Your task to perform on an android device: turn on data saver in the chrome app Image 0: 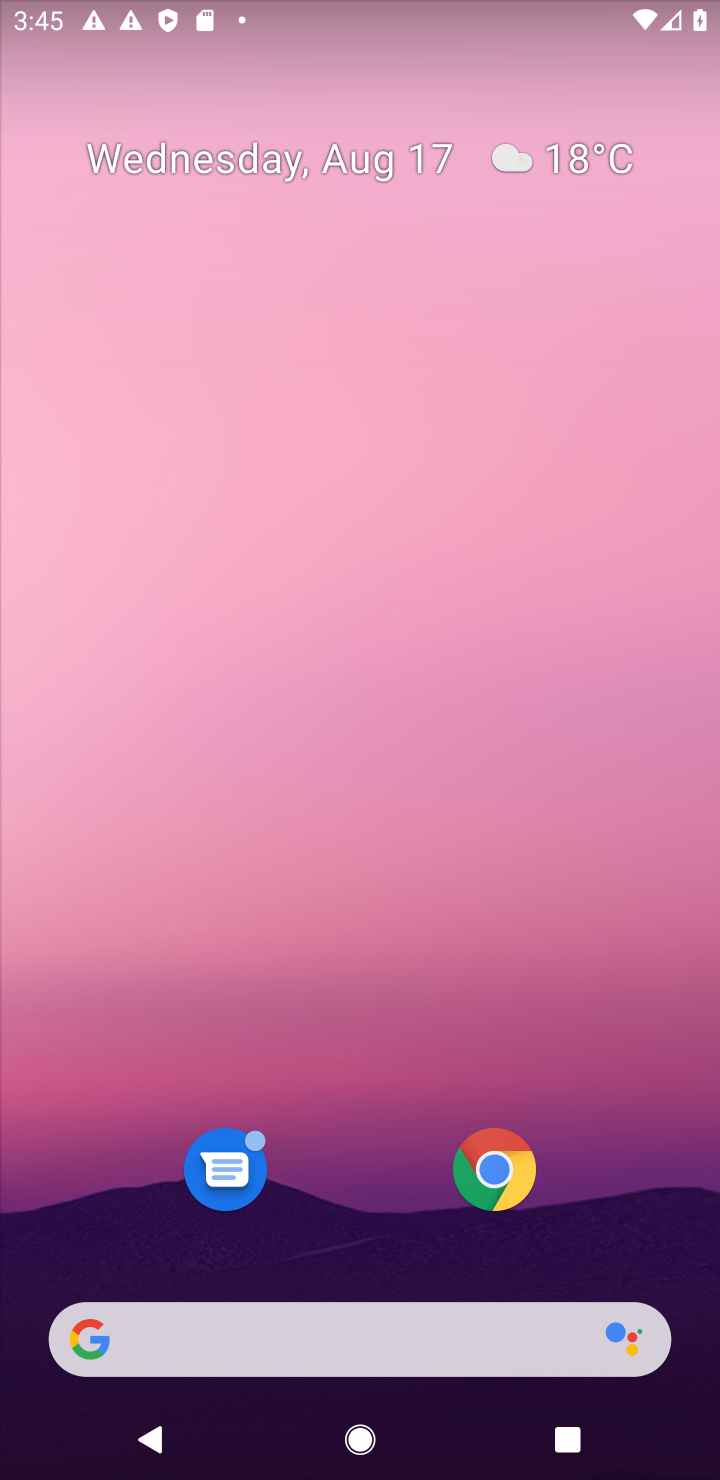
Step 0: press home button
Your task to perform on an android device: turn on data saver in the chrome app Image 1: 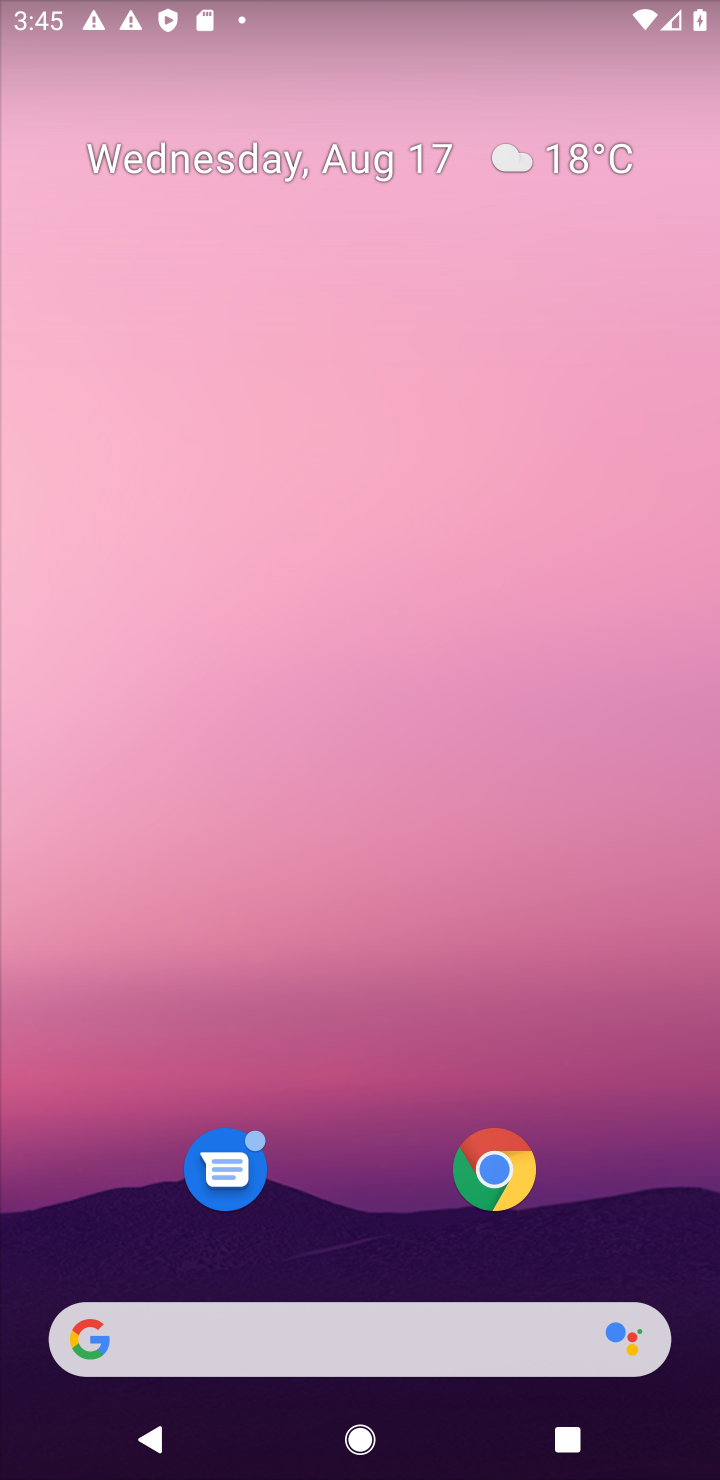
Step 1: drag from (434, 743) to (408, 200)
Your task to perform on an android device: turn on data saver in the chrome app Image 2: 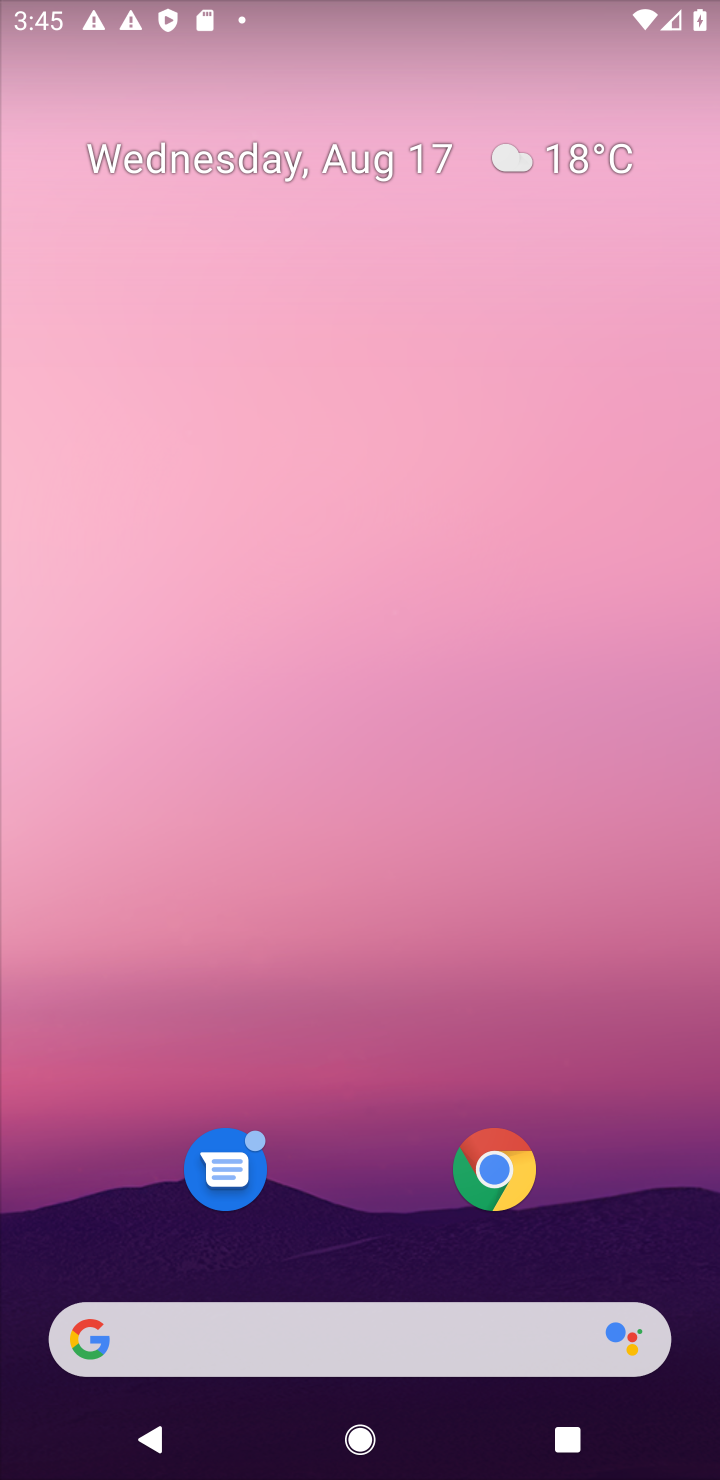
Step 2: drag from (406, 809) to (496, 118)
Your task to perform on an android device: turn on data saver in the chrome app Image 3: 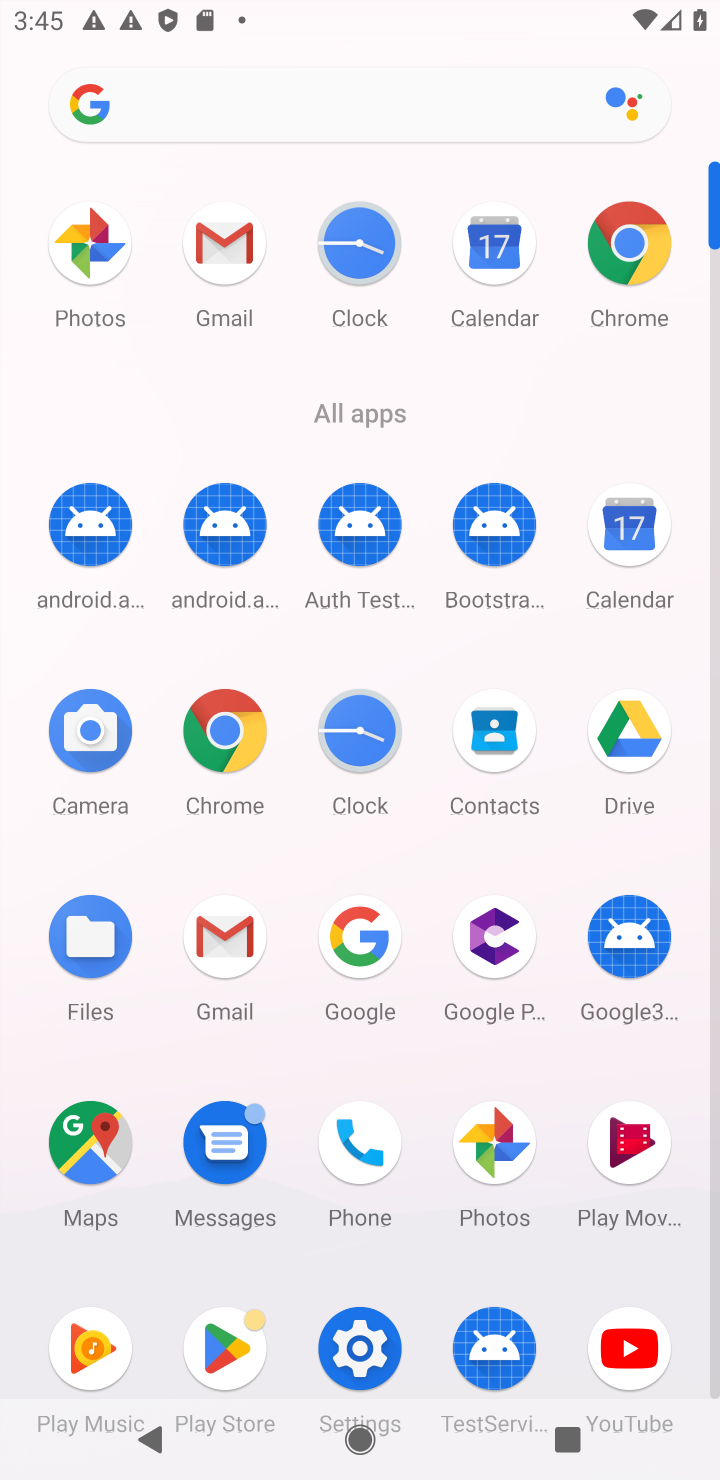
Step 3: click (225, 735)
Your task to perform on an android device: turn on data saver in the chrome app Image 4: 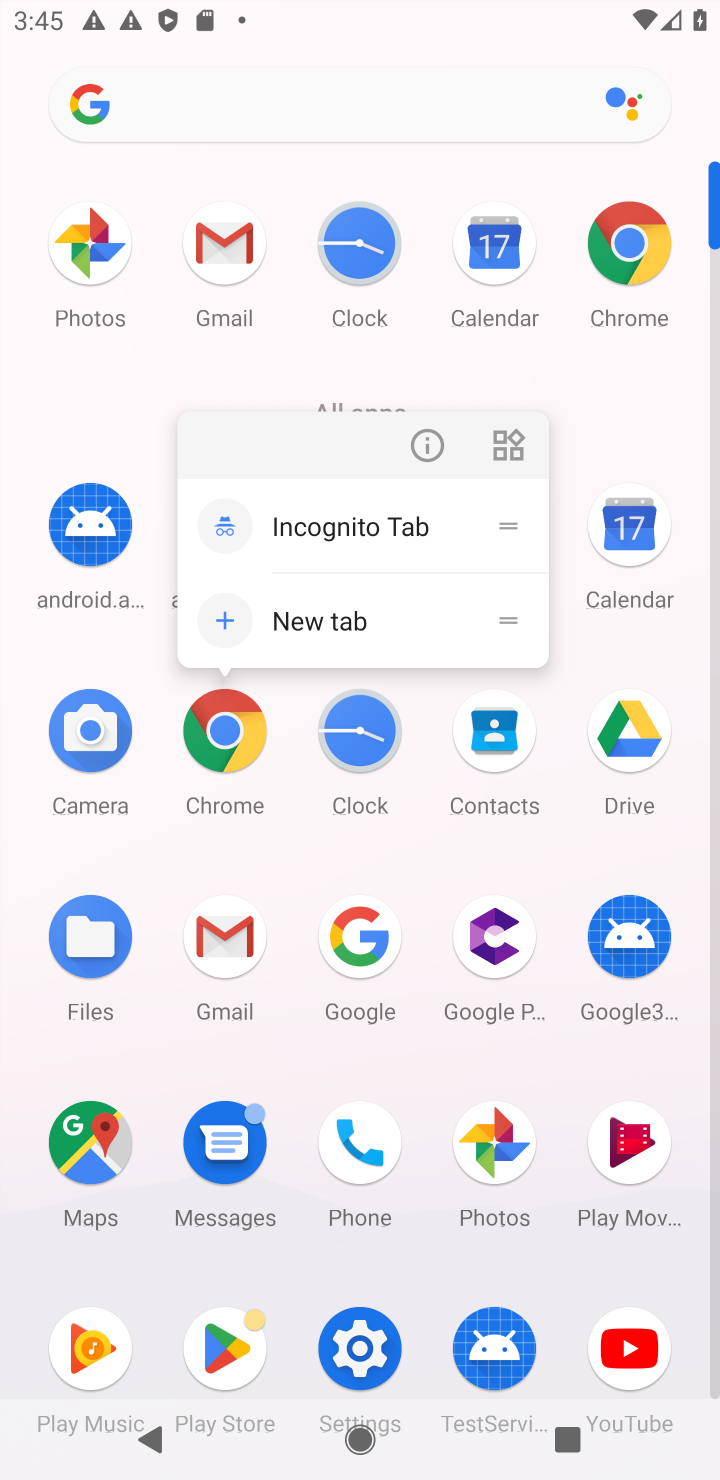
Step 4: click (246, 725)
Your task to perform on an android device: turn on data saver in the chrome app Image 5: 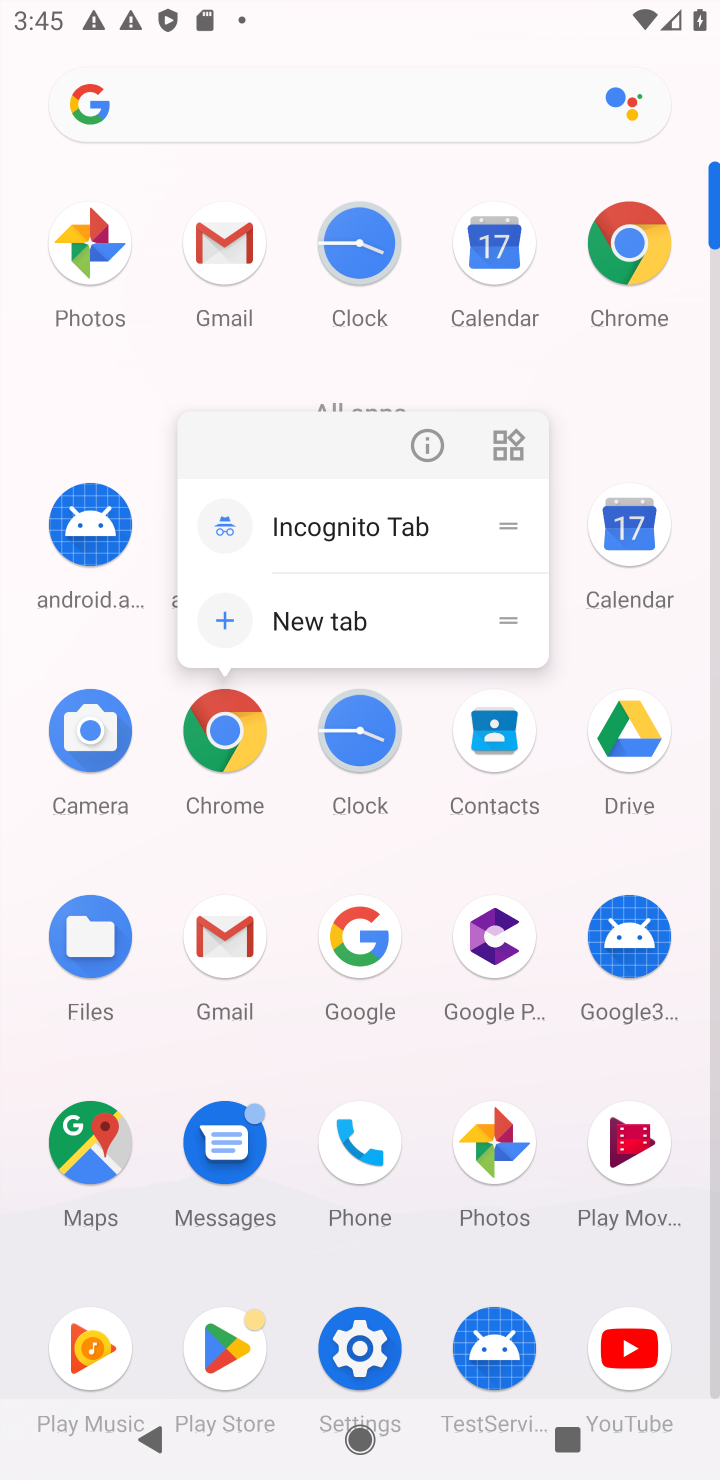
Step 5: click (223, 732)
Your task to perform on an android device: turn on data saver in the chrome app Image 6: 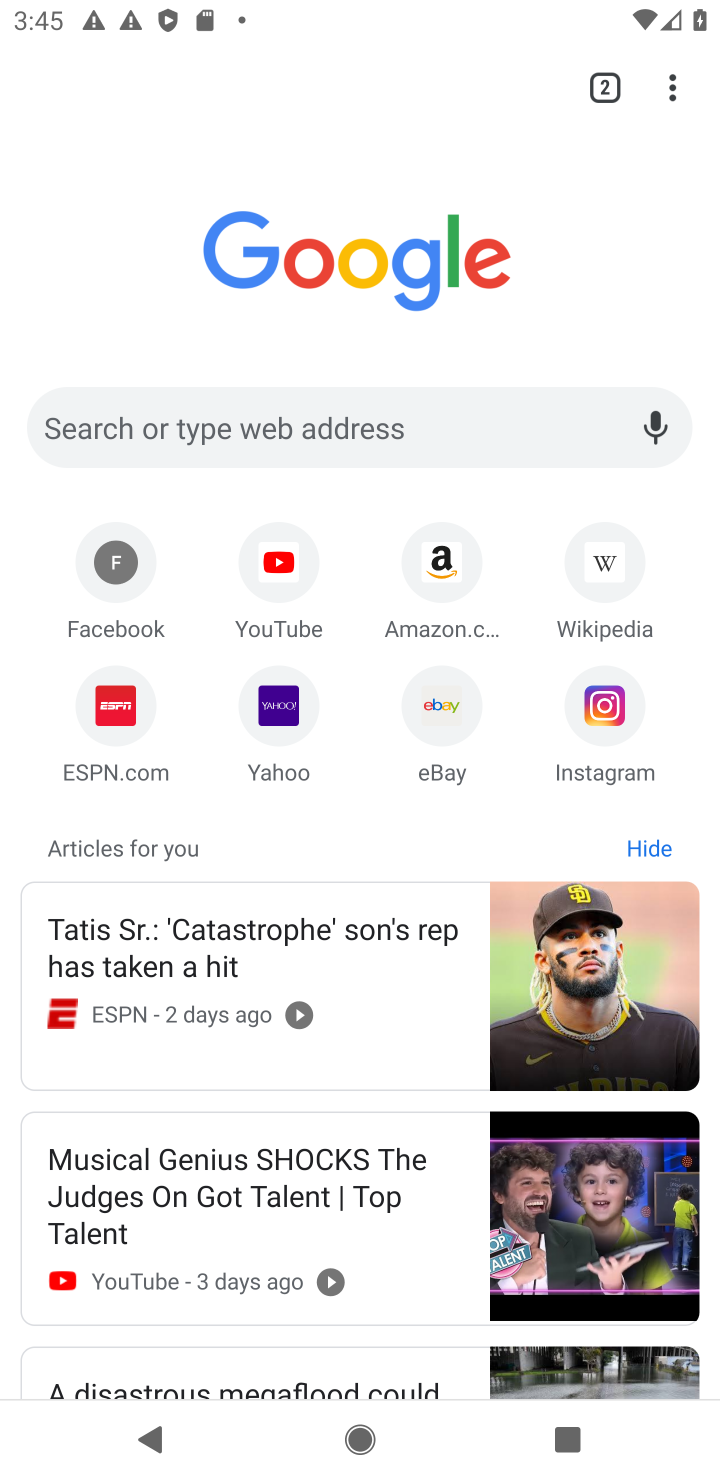
Step 6: drag from (679, 86) to (395, 823)
Your task to perform on an android device: turn on data saver in the chrome app Image 7: 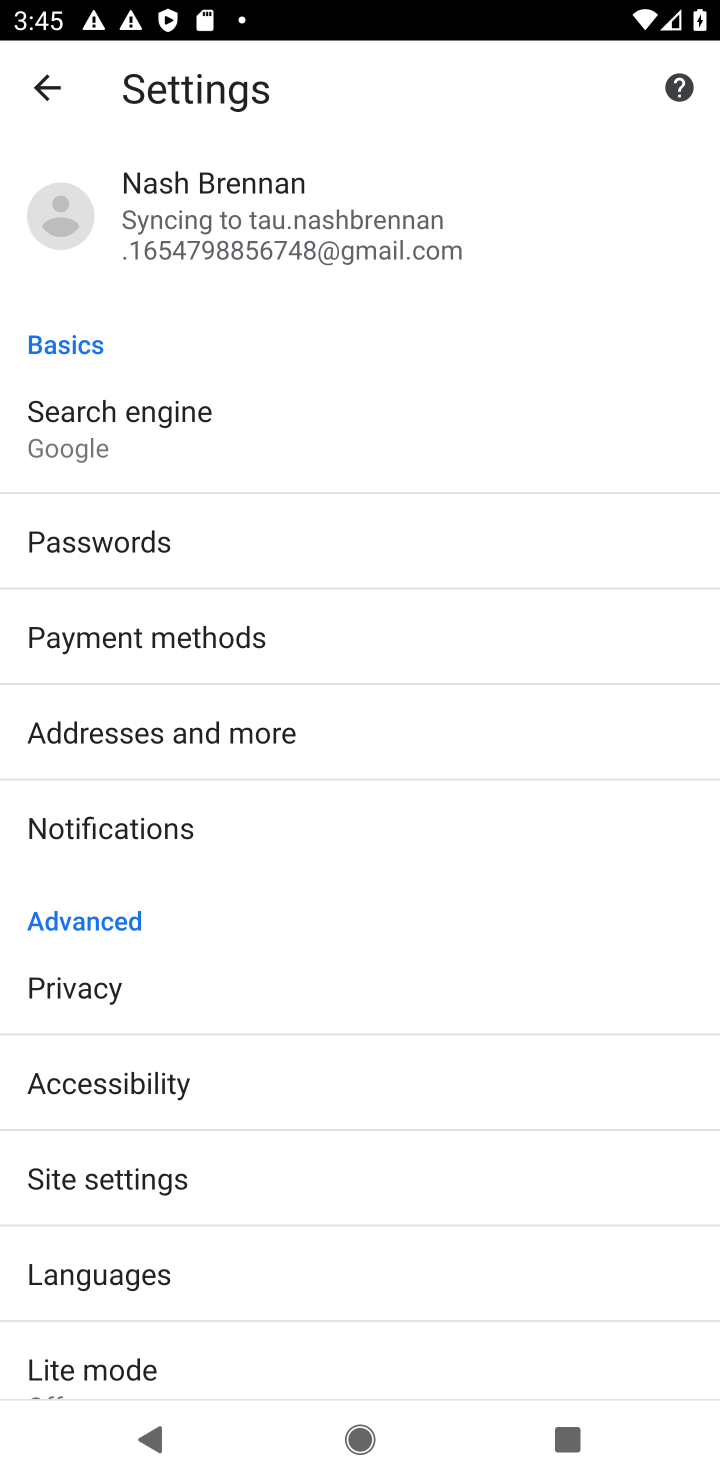
Step 7: drag from (257, 1232) to (342, 624)
Your task to perform on an android device: turn on data saver in the chrome app Image 8: 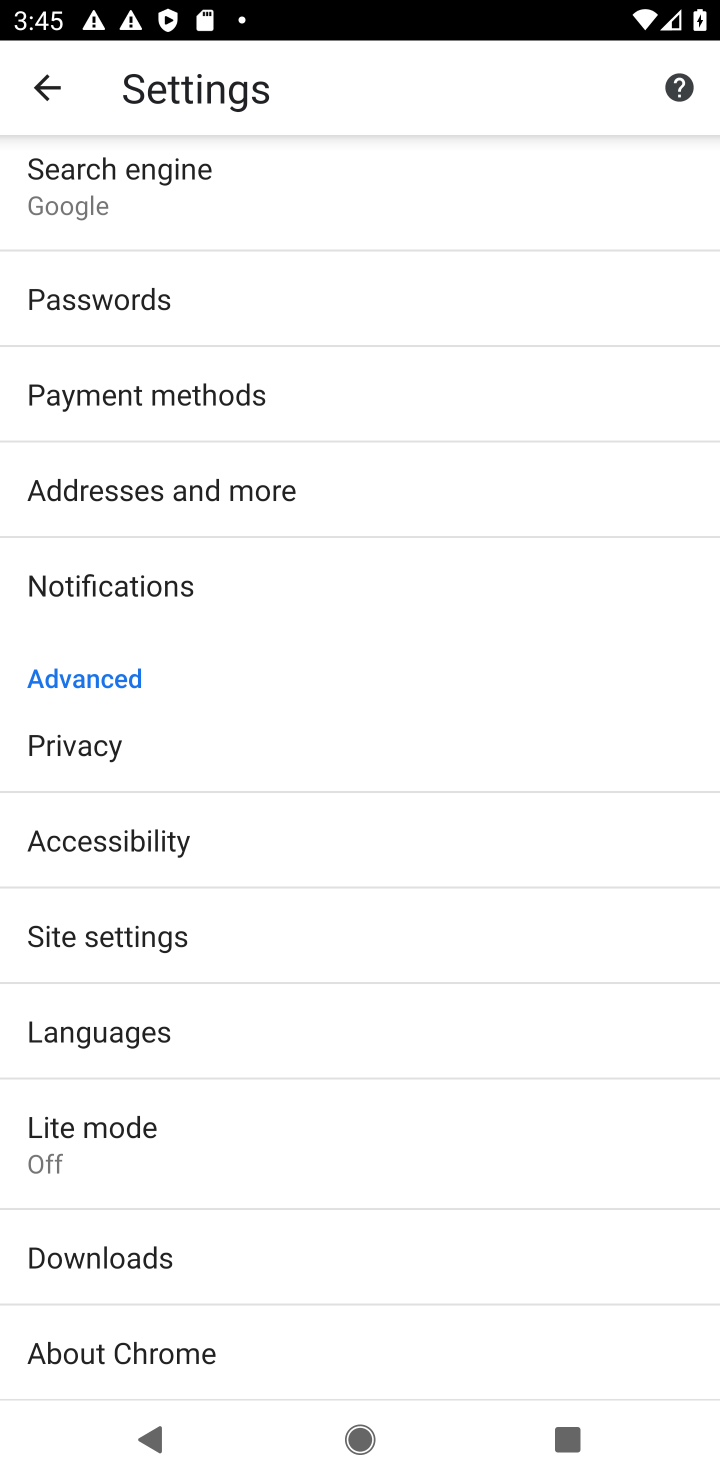
Step 8: click (128, 1137)
Your task to perform on an android device: turn on data saver in the chrome app Image 9: 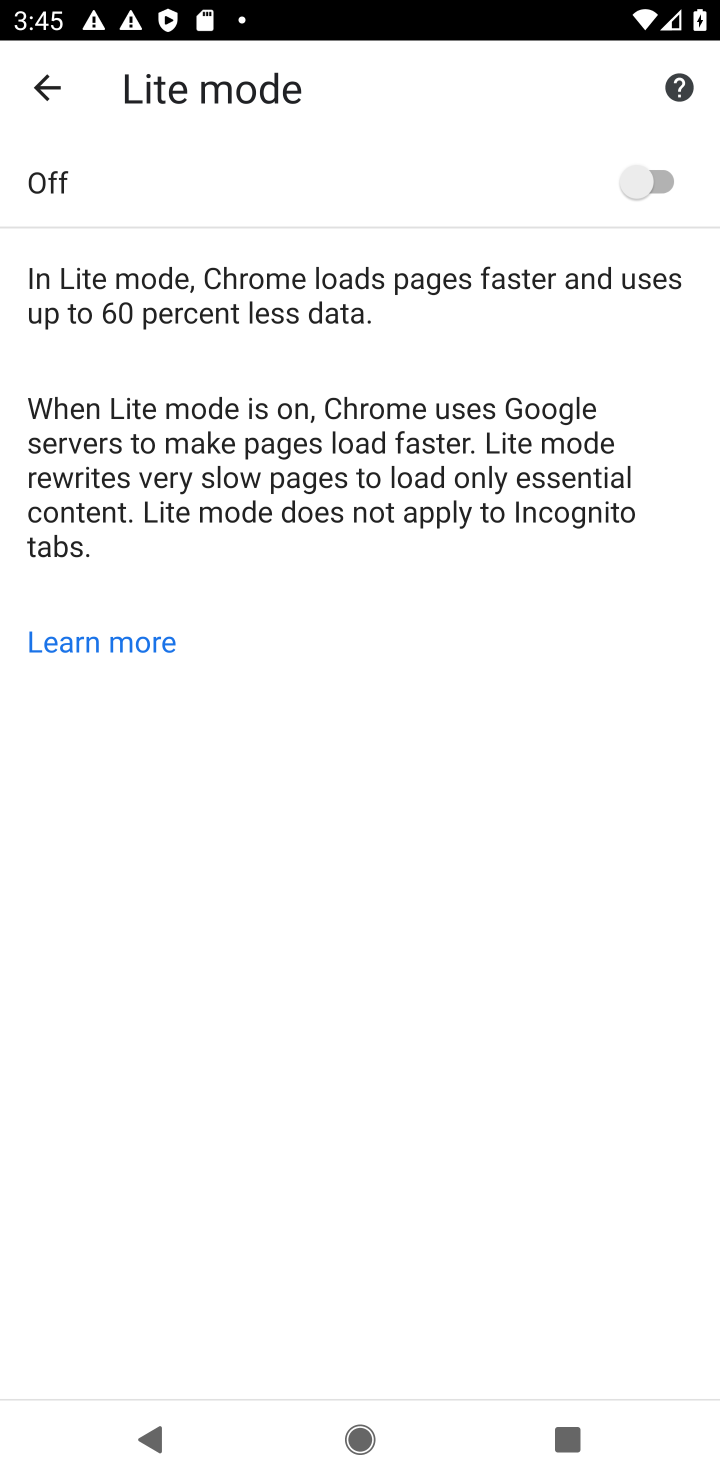
Step 9: click (489, 173)
Your task to perform on an android device: turn on data saver in the chrome app Image 10: 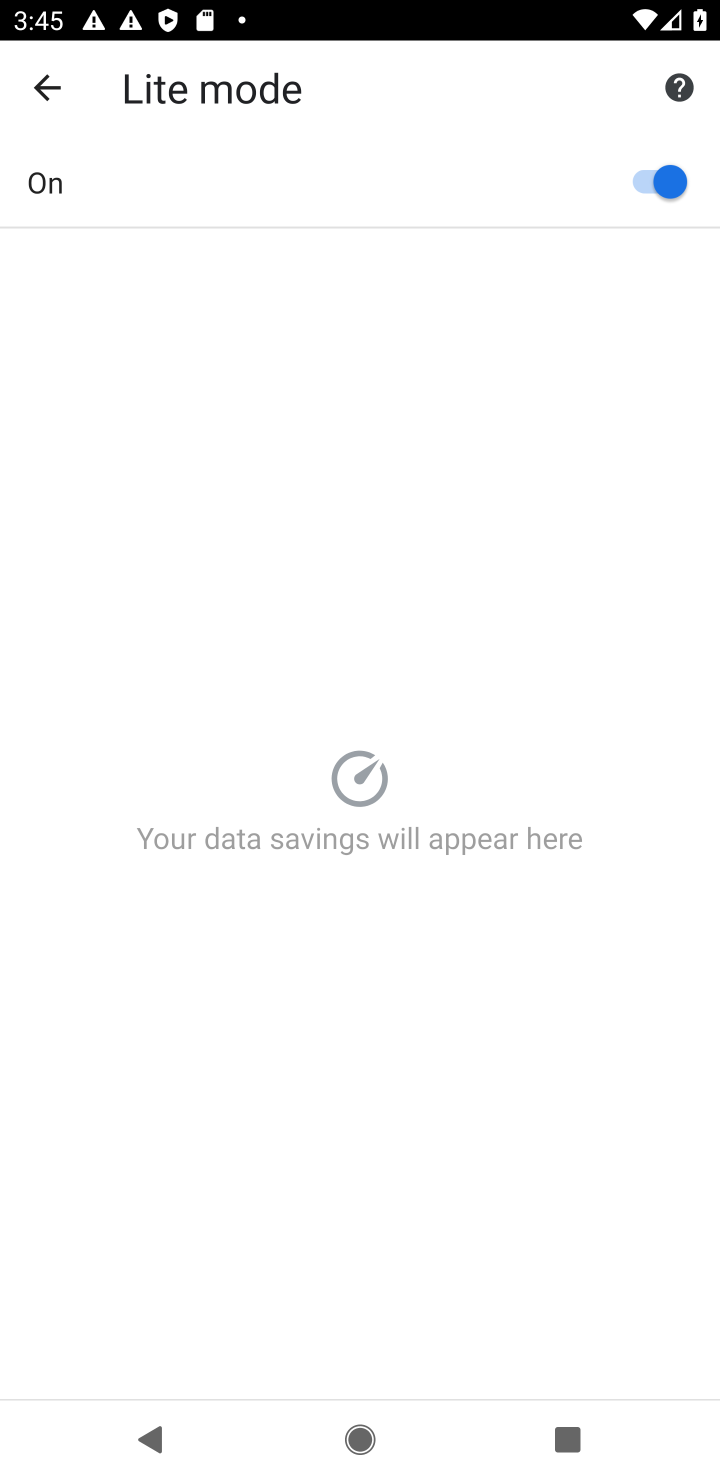
Step 10: task complete